Your task to perform on an android device: Do I have any events tomorrow? Image 0: 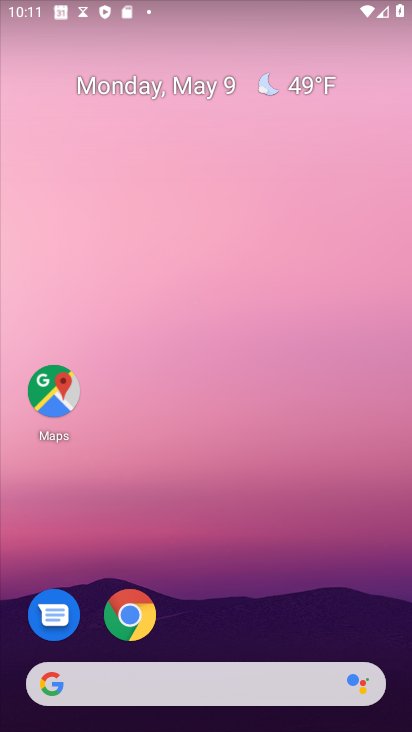
Step 0: drag from (231, 592) to (214, 105)
Your task to perform on an android device: Do I have any events tomorrow? Image 1: 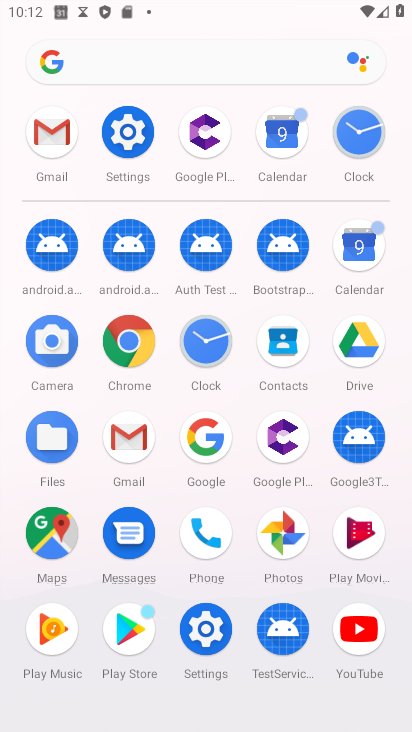
Step 1: click (355, 241)
Your task to perform on an android device: Do I have any events tomorrow? Image 2: 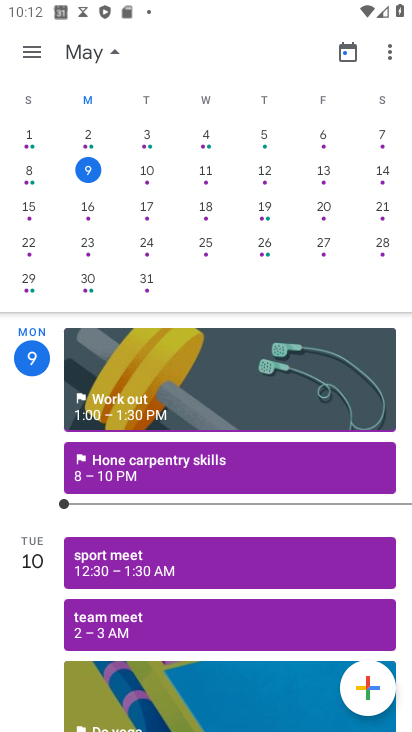
Step 2: click (147, 176)
Your task to perform on an android device: Do I have any events tomorrow? Image 3: 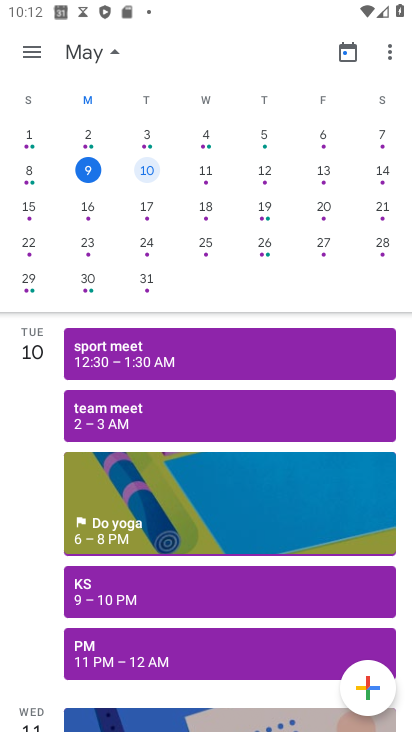
Step 3: task complete